Your task to perform on an android device: turn smart compose on in the gmail app Image 0: 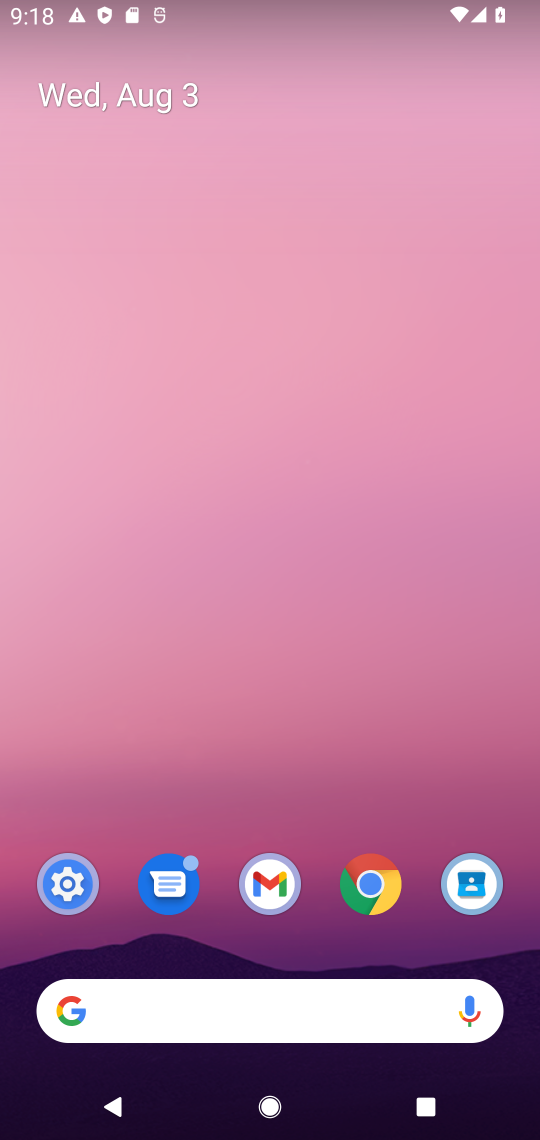
Step 0: press home button
Your task to perform on an android device: turn smart compose on in the gmail app Image 1: 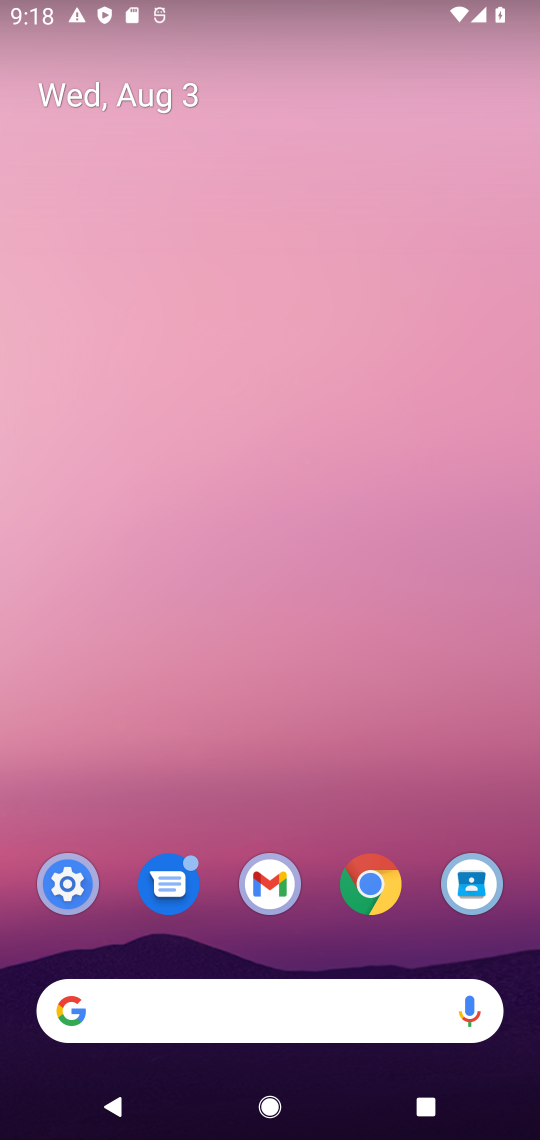
Step 1: press home button
Your task to perform on an android device: turn smart compose on in the gmail app Image 2: 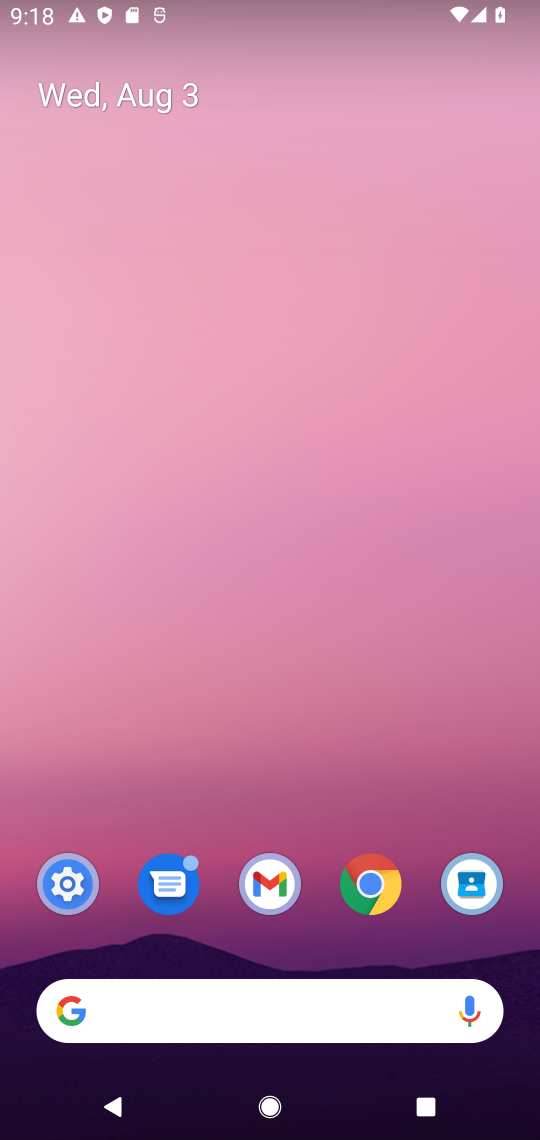
Step 2: drag from (457, 945) to (381, 19)
Your task to perform on an android device: turn smart compose on in the gmail app Image 3: 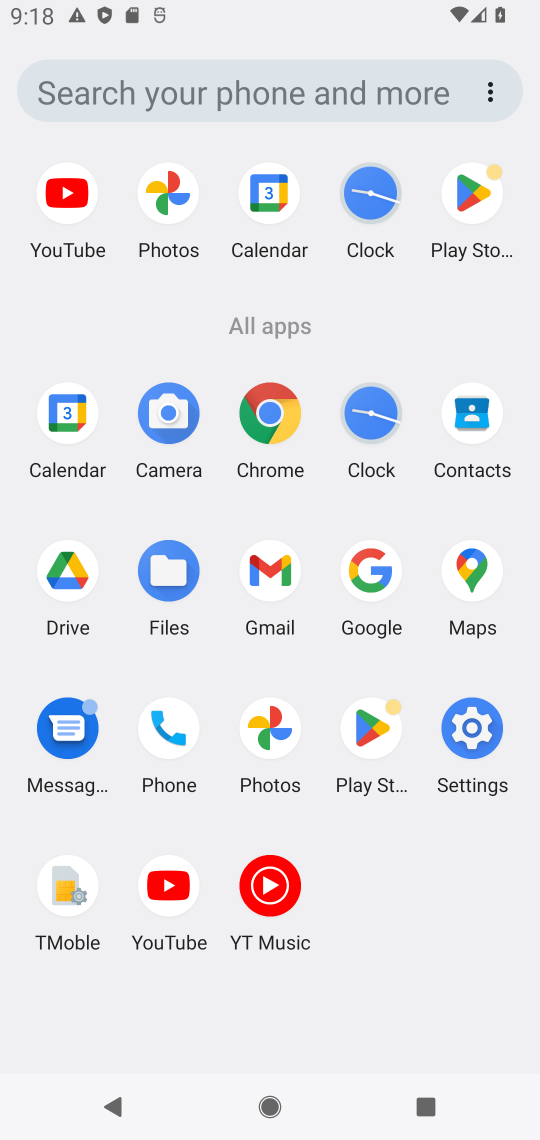
Step 3: click (490, 722)
Your task to perform on an android device: turn smart compose on in the gmail app Image 4: 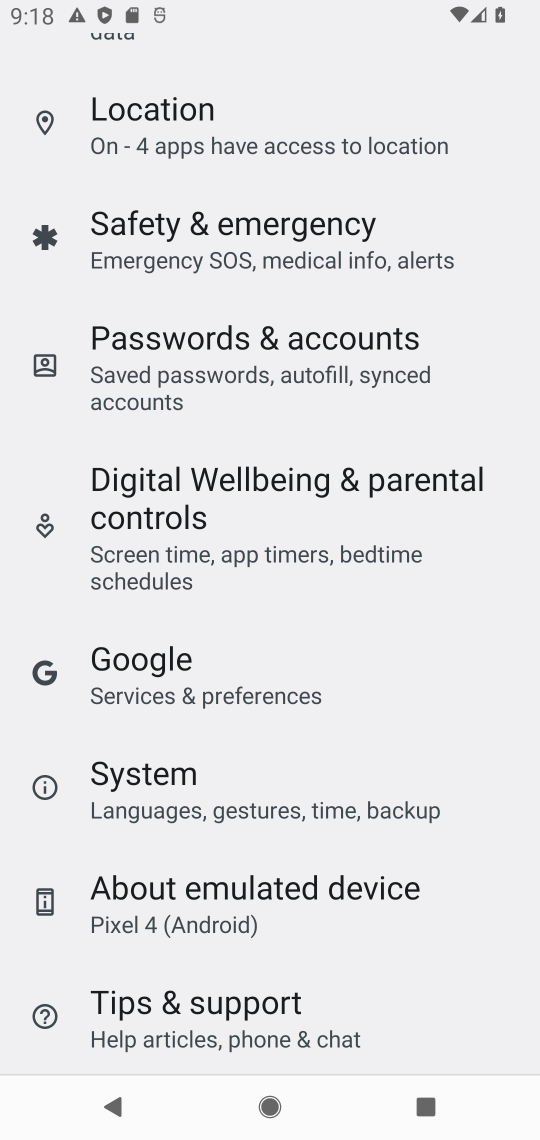
Step 4: press home button
Your task to perform on an android device: turn smart compose on in the gmail app Image 5: 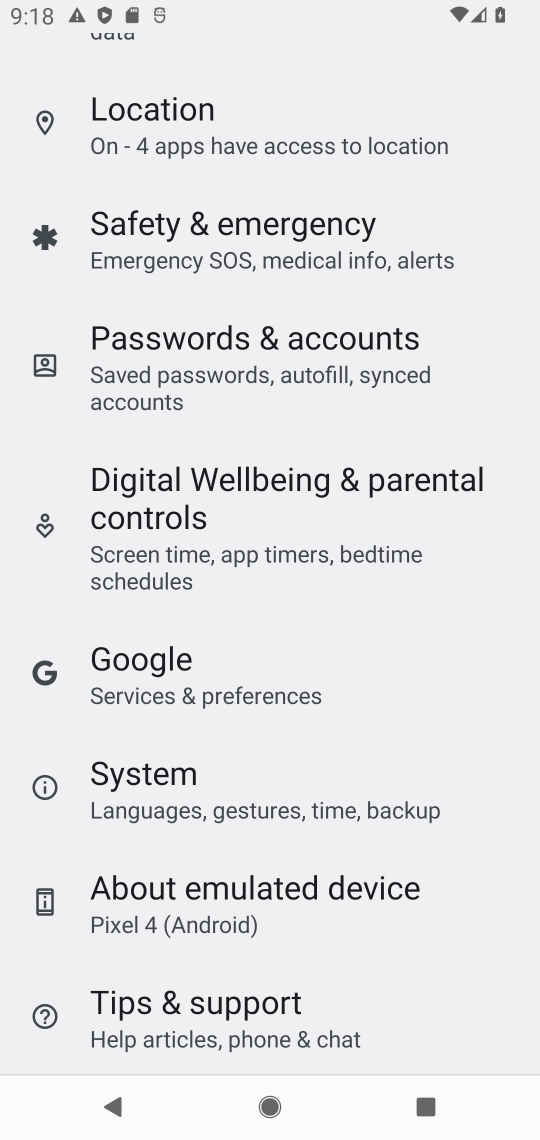
Step 5: press home button
Your task to perform on an android device: turn smart compose on in the gmail app Image 6: 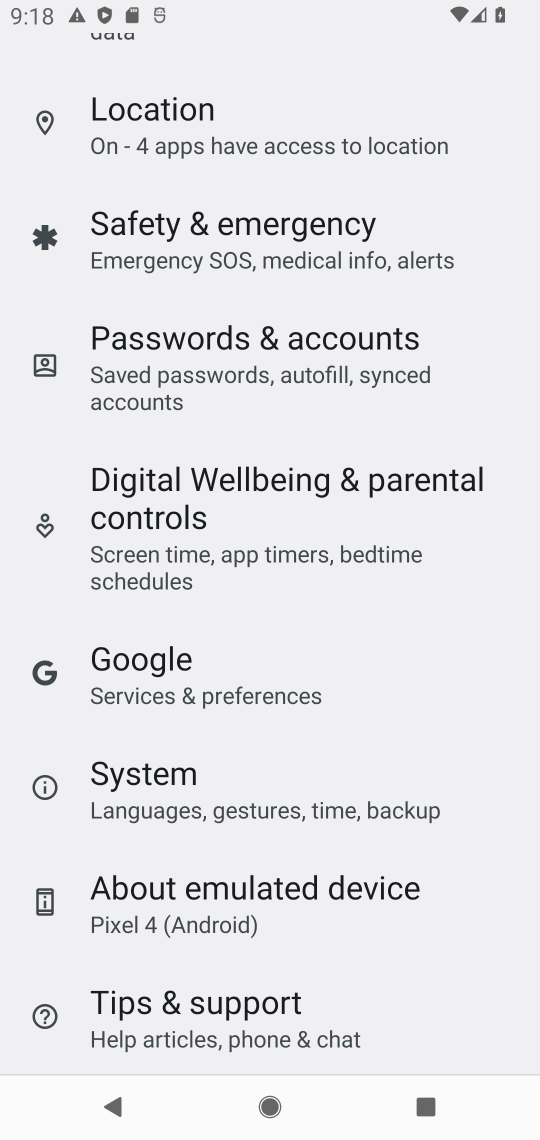
Step 6: press home button
Your task to perform on an android device: turn smart compose on in the gmail app Image 7: 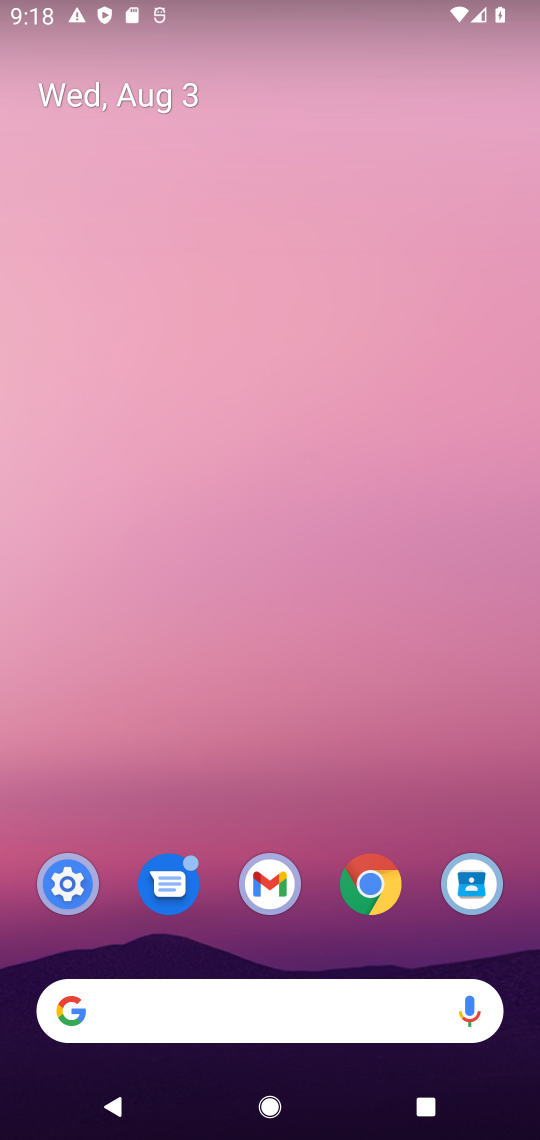
Step 7: drag from (313, 785) to (23, 6)
Your task to perform on an android device: turn smart compose on in the gmail app Image 8: 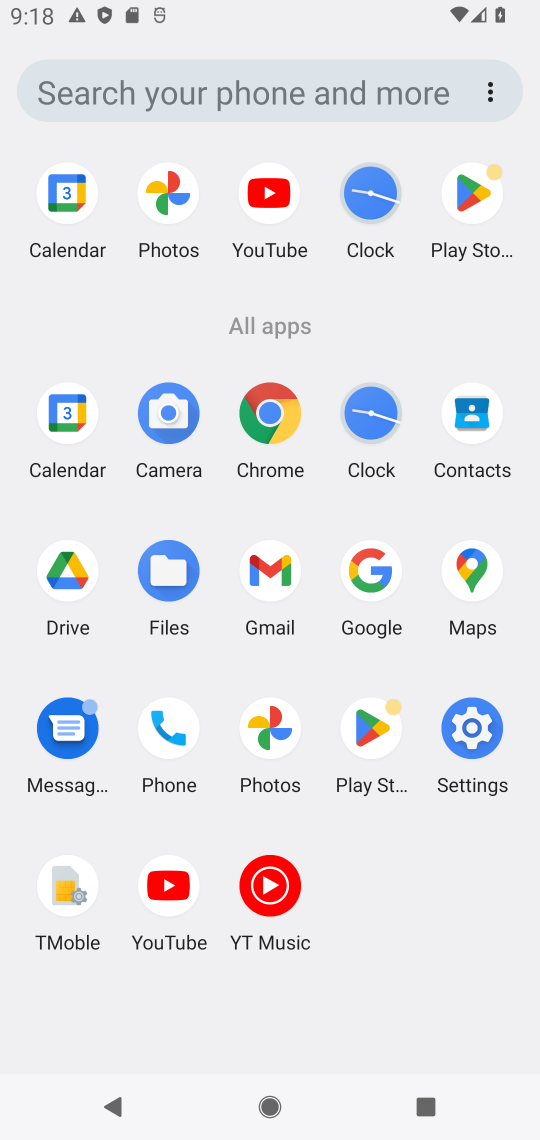
Step 8: click (248, 607)
Your task to perform on an android device: turn smart compose on in the gmail app Image 9: 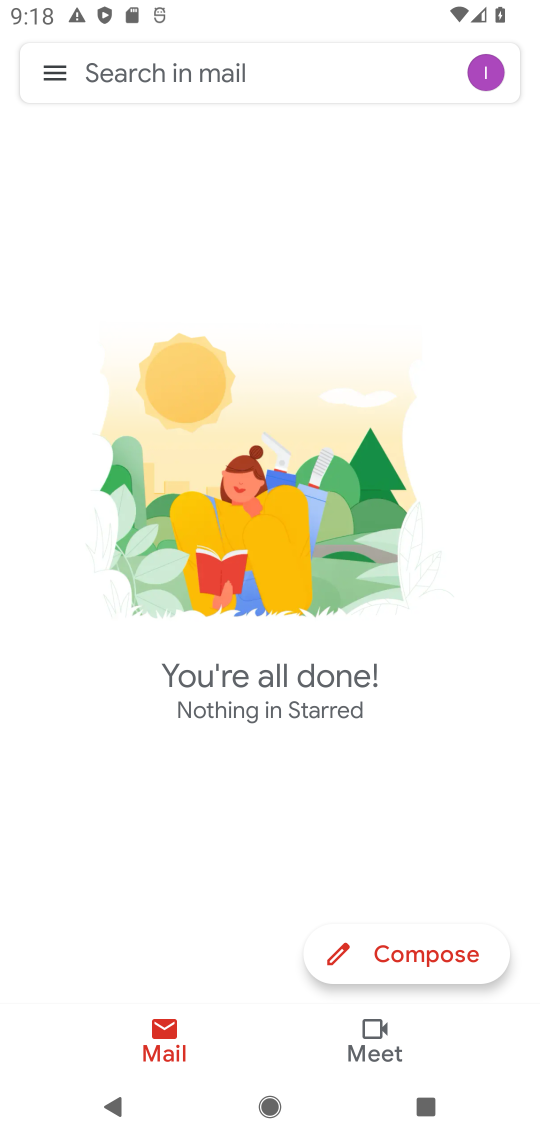
Step 9: click (52, 85)
Your task to perform on an android device: turn smart compose on in the gmail app Image 10: 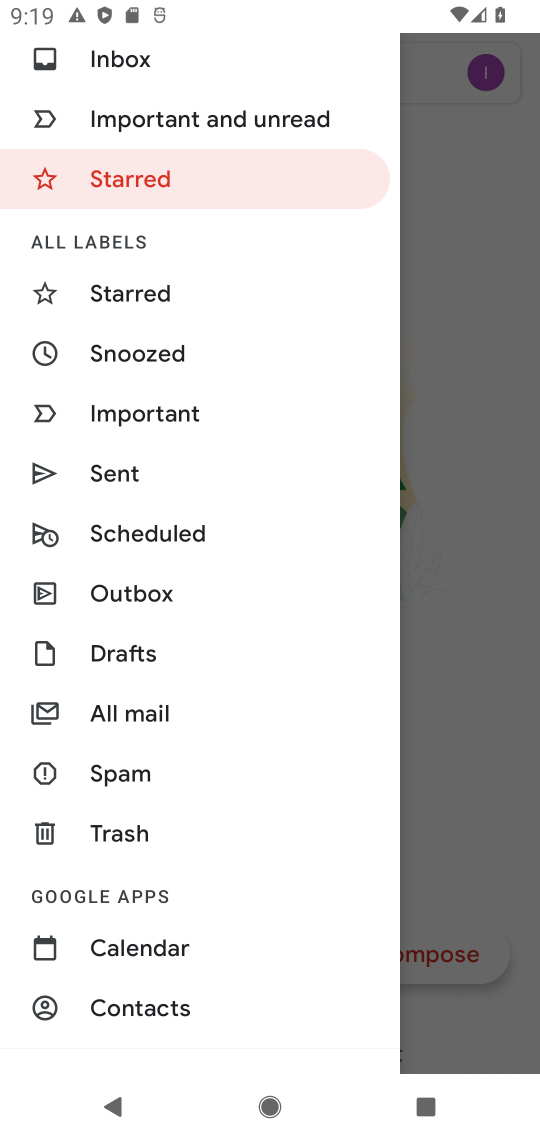
Step 10: drag from (184, 914) to (123, 343)
Your task to perform on an android device: turn smart compose on in the gmail app Image 11: 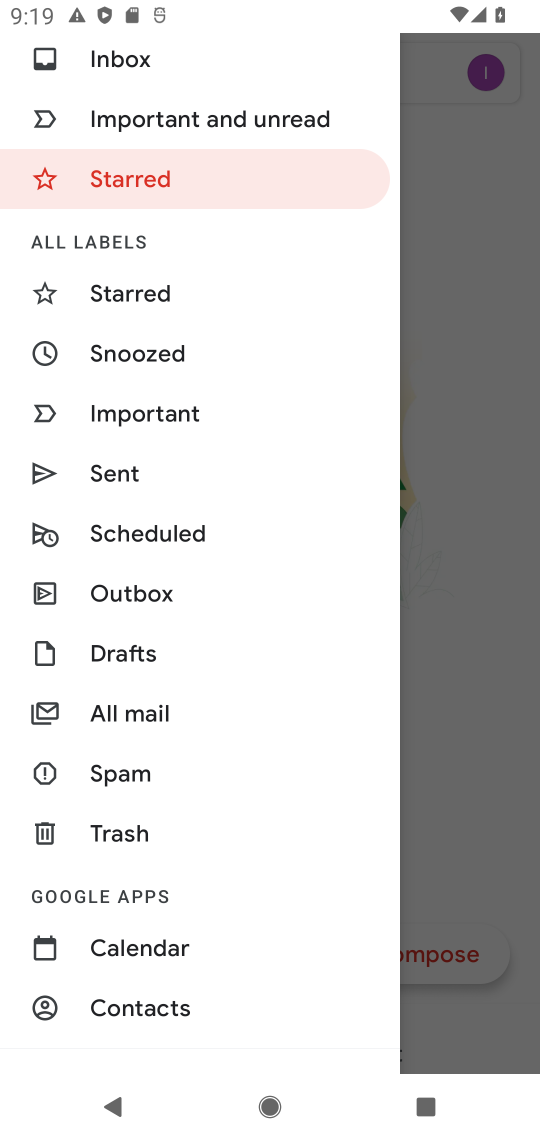
Step 11: drag from (228, 978) to (283, 227)
Your task to perform on an android device: turn smart compose on in the gmail app Image 12: 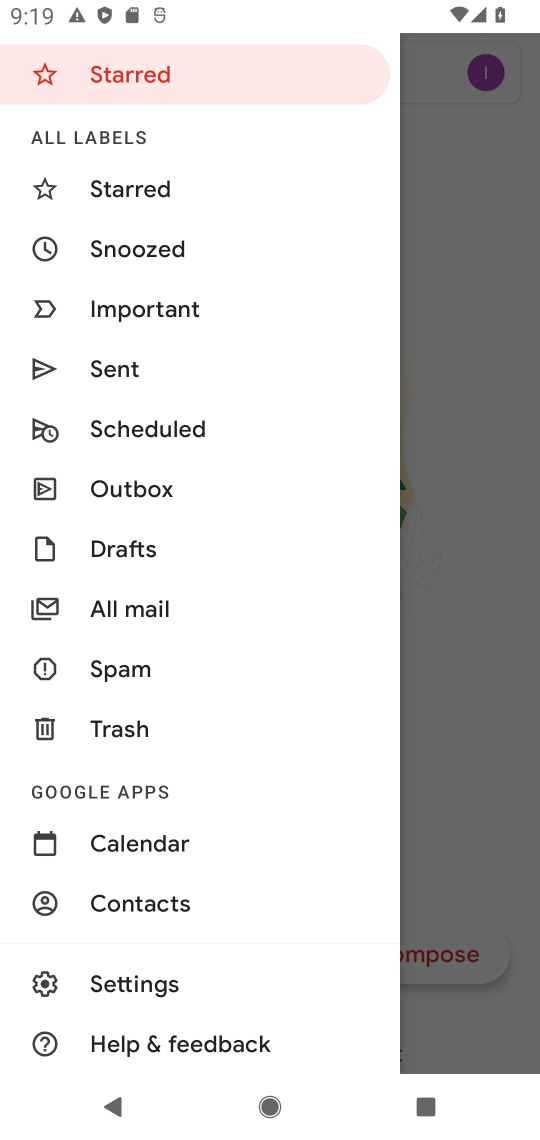
Step 12: click (113, 978)
Your task to perform on an android device: turn smart compose on in the gmail app Image 13: 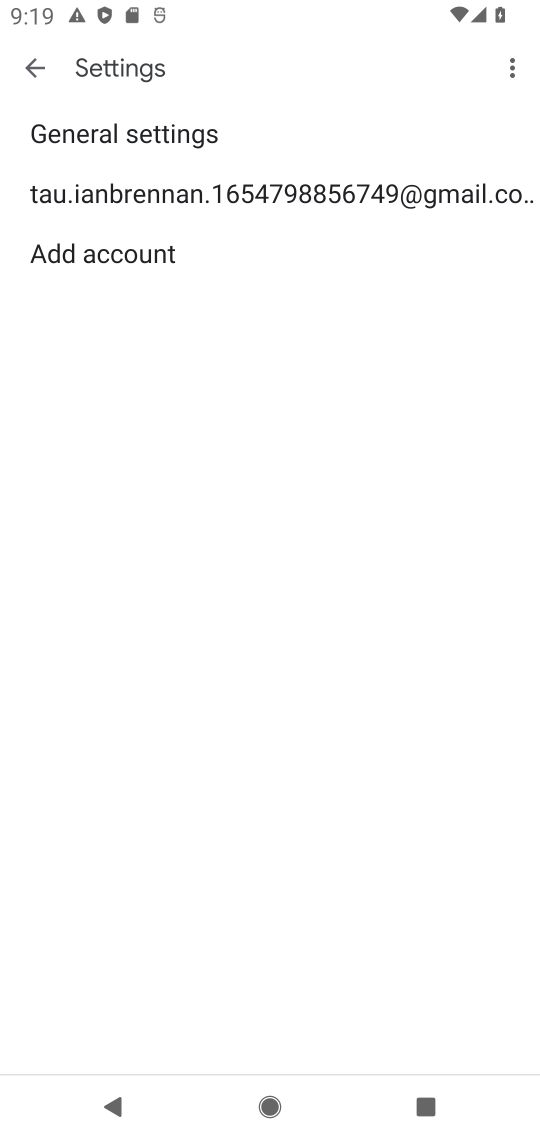
Step 13: click (485, 184)
Your task to perform on an android device: turn smart compose on in the gmail app Image 14: 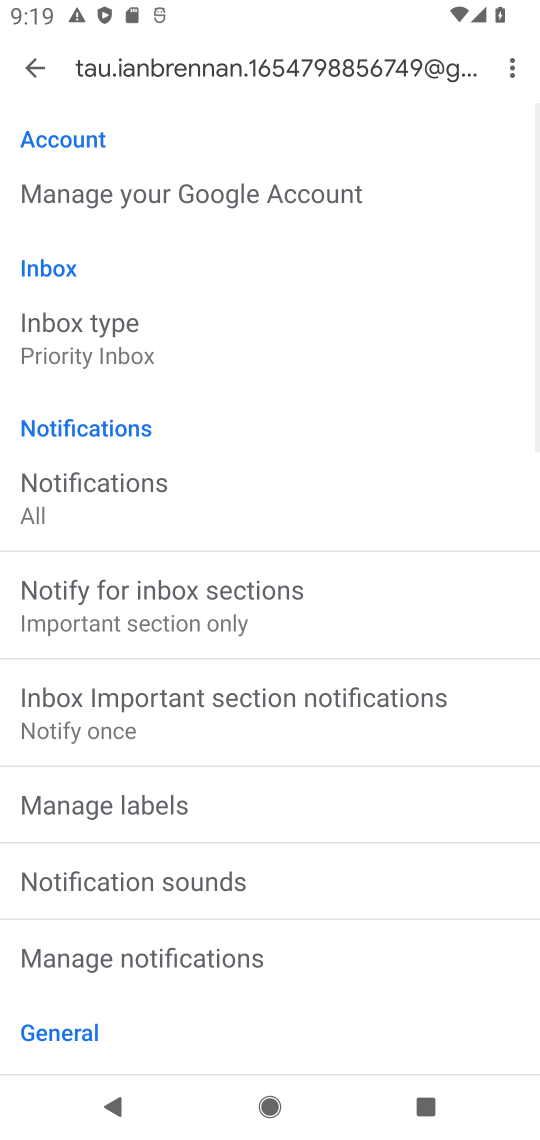
Step 14: drag from (390, 956) to (369, 28)
Your task to perform on an android device: turn smart compose on in the gmail app Image 15: 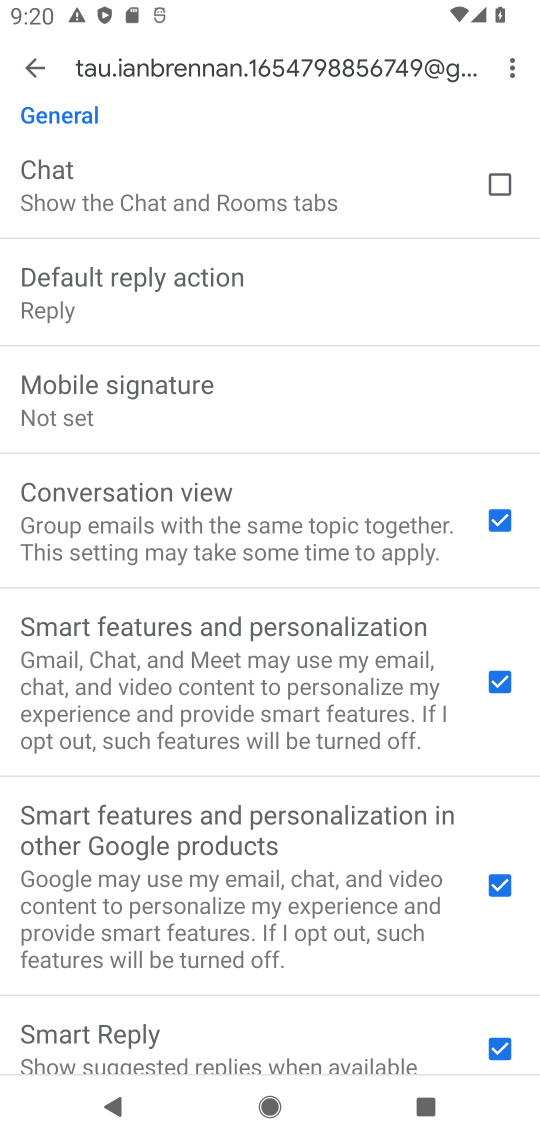
Step 15: drag from (263, 853) to (234, 445)
Your task to perform on an android device: turn smart compose on in the gmail app Image 16: 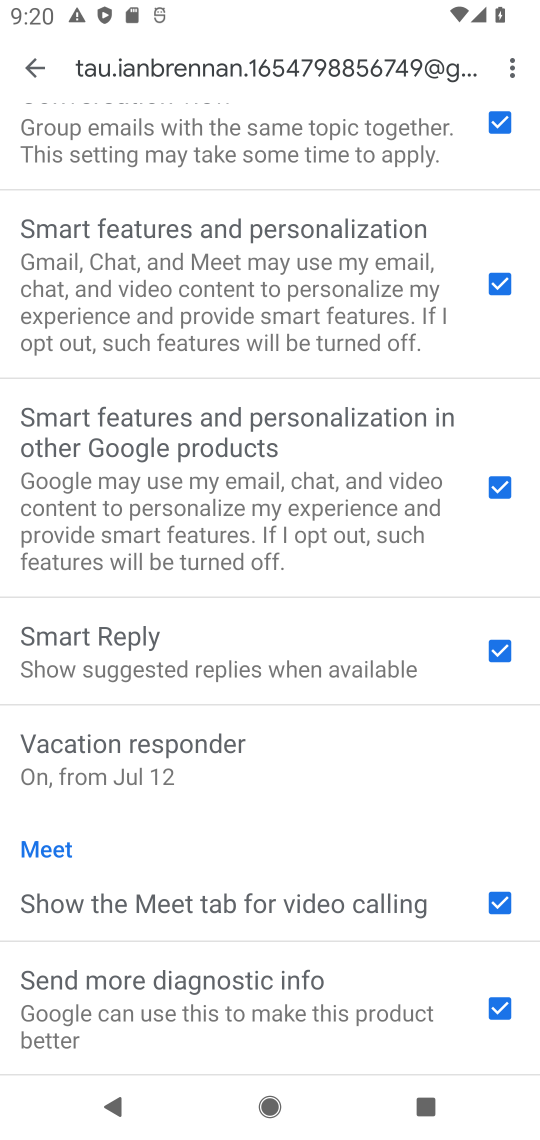
Step 16: drag from (180, 951) to (214, 493)
Your task to perform on an android device: turn smart compose on in the gmail app Image 17: 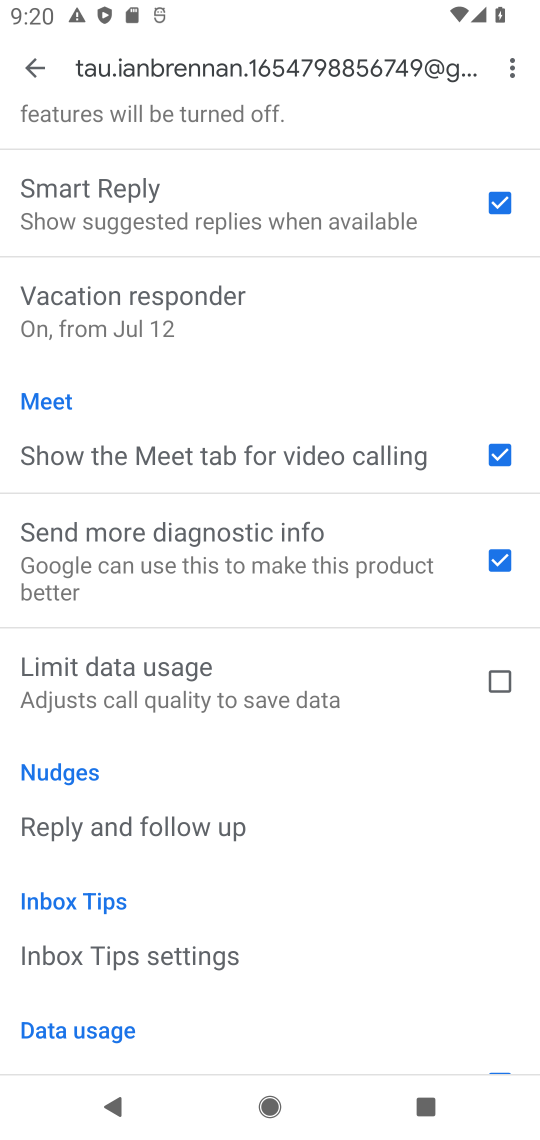
Step 17: drag from (169, 192) to (152, 917)
Your task to perform on an android device: turn smart compose on in the gmail app Image 18: 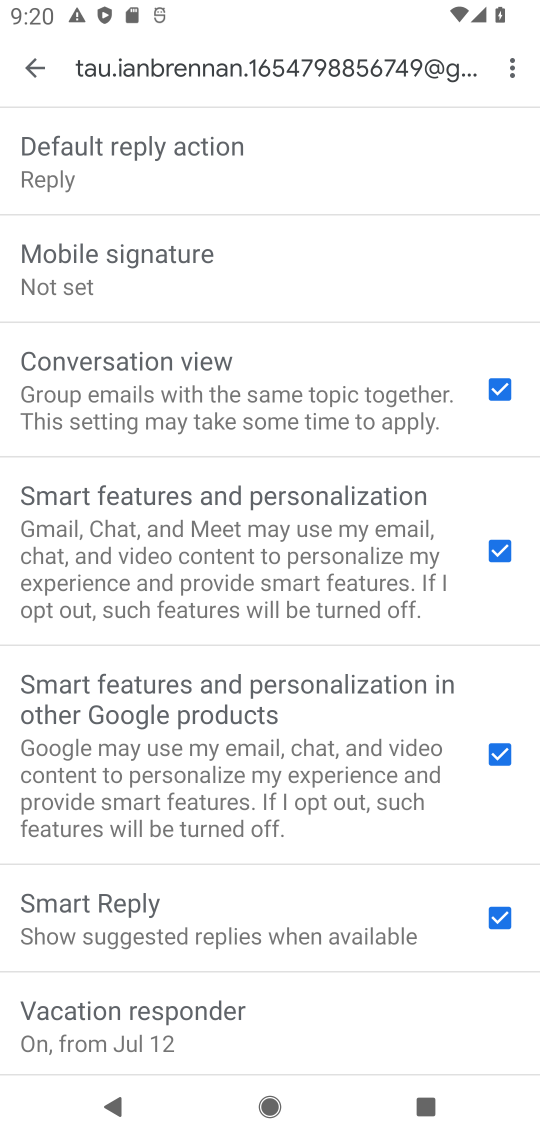
Step 18: click (53, 63)
Your task to perform on an android device: turn smart compose on in the gmail app Image 19: 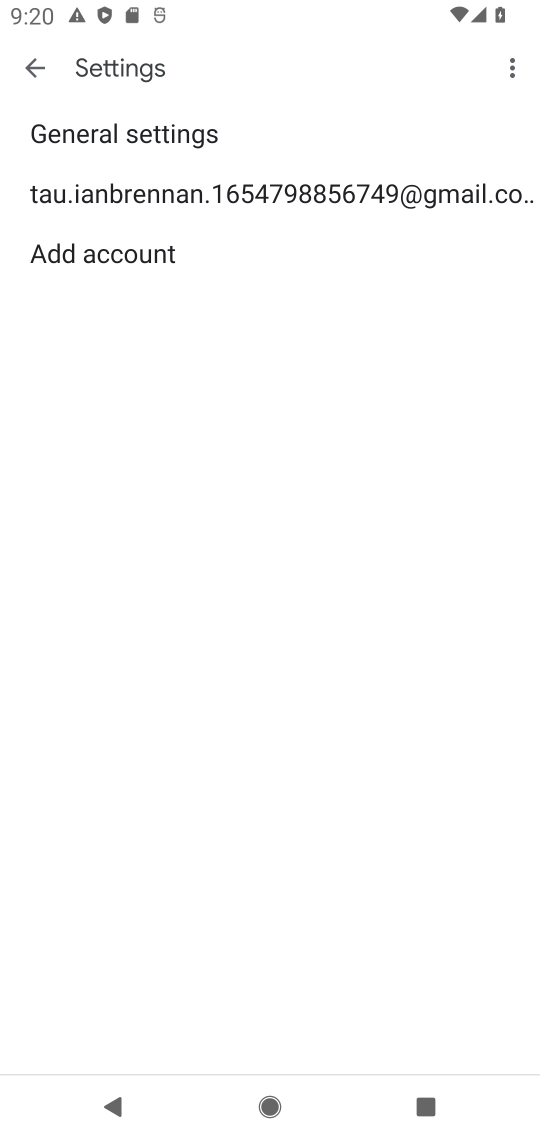
Step 19: click (203, 200)
Your task to perform on an android device: turn smart compose on in the gmail app Image 20: 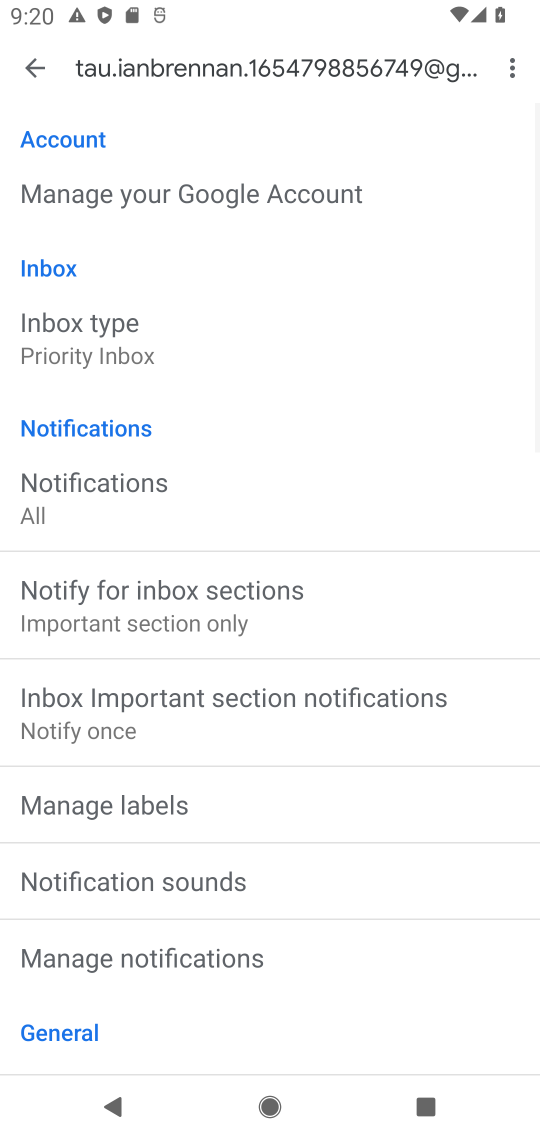
Step 20: task complete